Your task to perform on an android device: open chrome privacy settings Image 0: 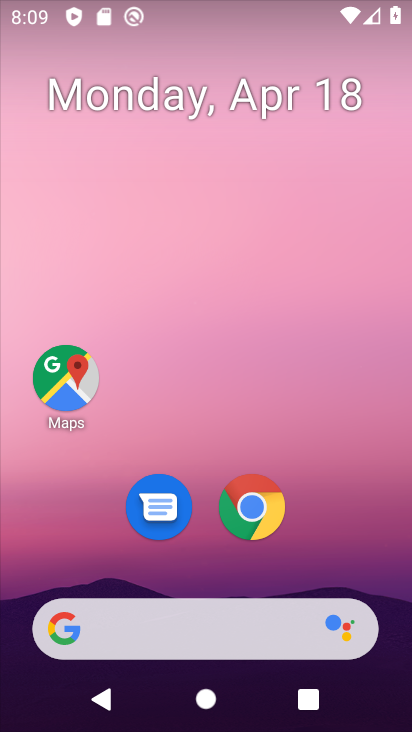
Step 0: drag from (285, 543) to (313, 169)
Your task to perform on an android device: open chrome privacy settings Image 1: 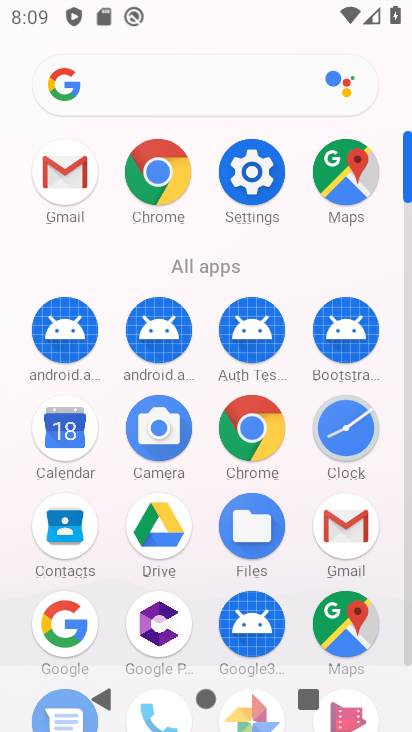
Step 1: click (258, 408)
Your task to perform on an android device: open chrome privacy settings Image 2: 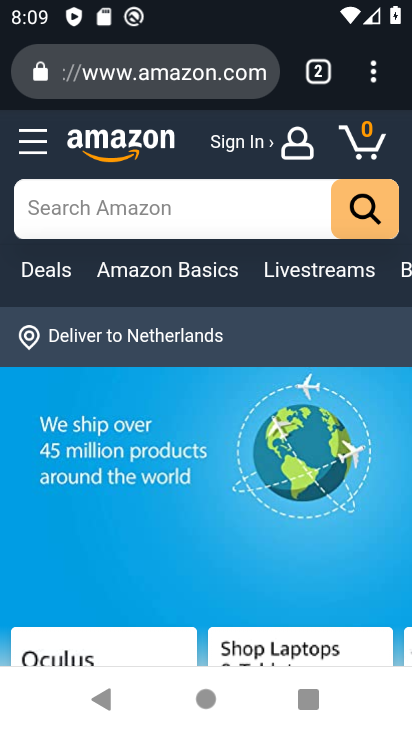
Step 2: click (375, 66)
Your task to perform on an android device: open chrome privacy settings Image 3: 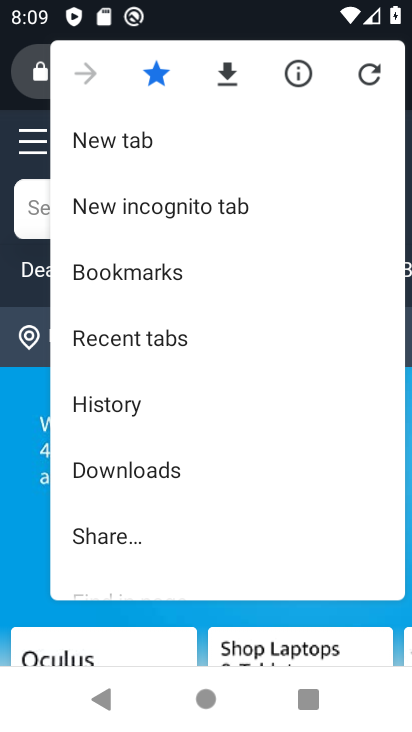
Step 3: drag from (158, 513) to (187, 227)
Your task to perform on an android device: open chrome privacy settings Image 4: 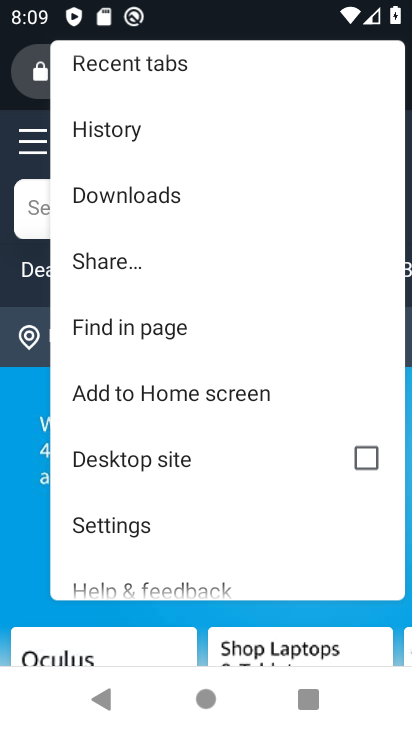
Step 4: click (129, 521)
Your task to perform on an android device: open chrome privacy settings Image 5: 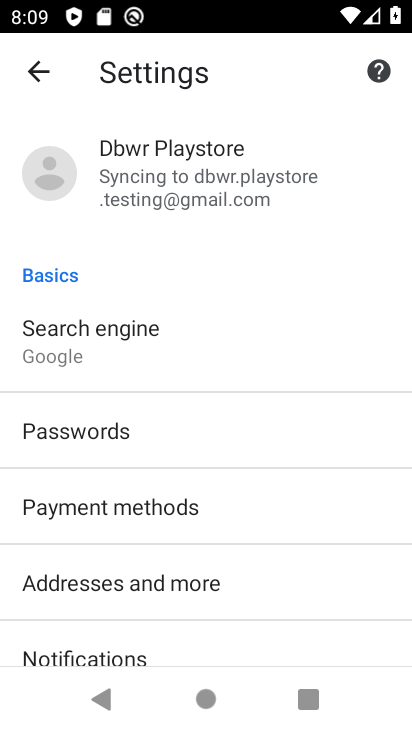
Step 5: drag from (181, 592) to (218, 108)
Your task to perform on an android device: open chrome privacy settings Image 6: 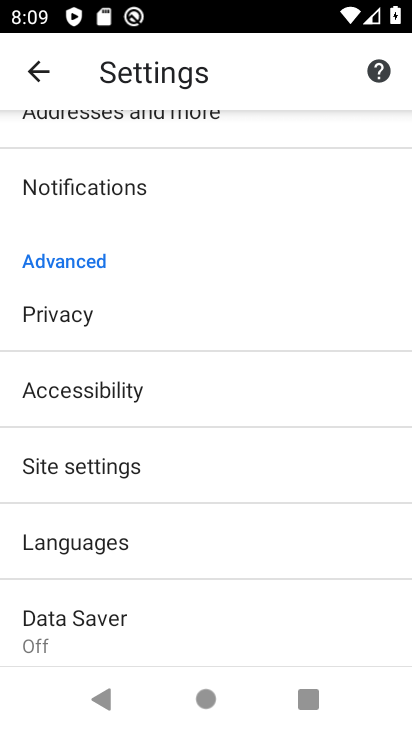
Step 6: click (22, 314)
Your task to perform on an android device: open chrome privacy settings Image 7: 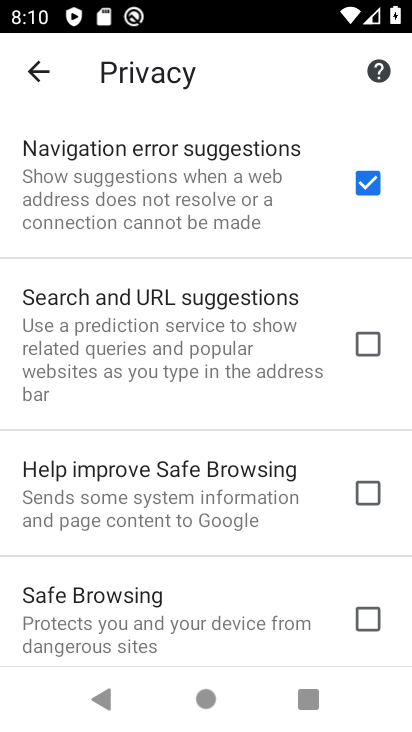
Step 7: task complete